Your task to perform on an android device: Go to Reddit.com Image 0: 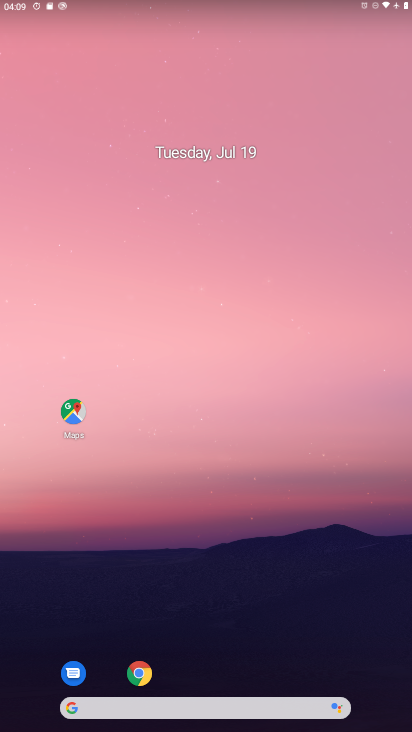
Step 0: click (137, 674)
Your task to perform on an android device: Go to Reddit.com Image 1: 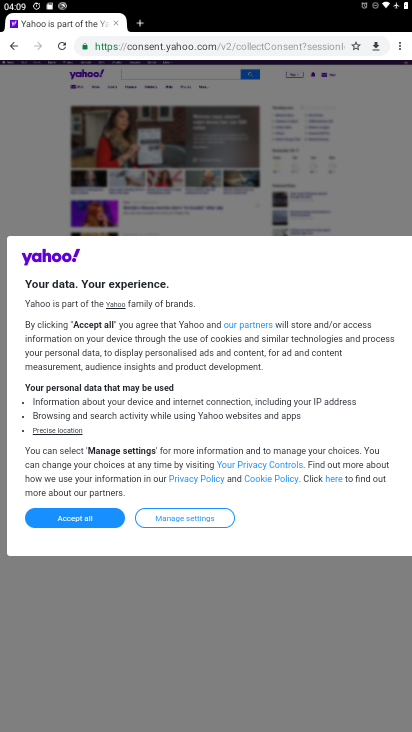
Step 1: click (202, 47)
Your task to perform on an android device: Go to Reddit.com Image 2: 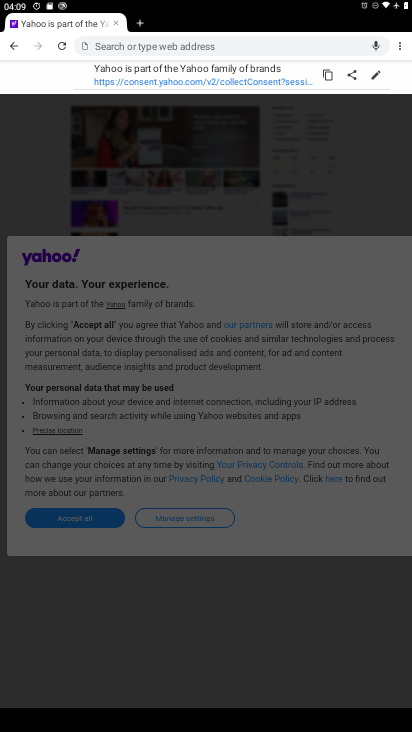
Step 2: type "Reddit.com"
Your task to perform on an android device: Go to Reddit.com Image 3: 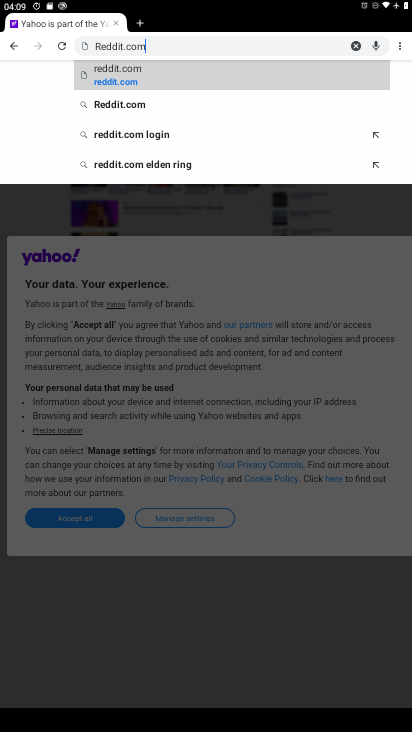
Step 3: click (178, 73)
Your task to perform on an android device: Go to Reddit.com Image 4: 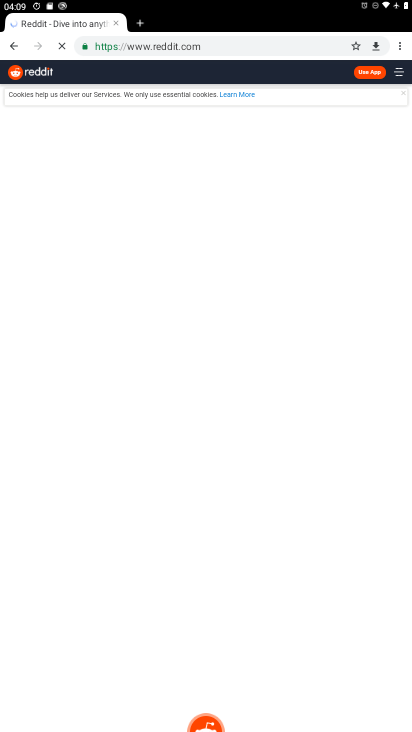
Step 4: task complete